Your task to perform on an android device: Open network settings Image 0: 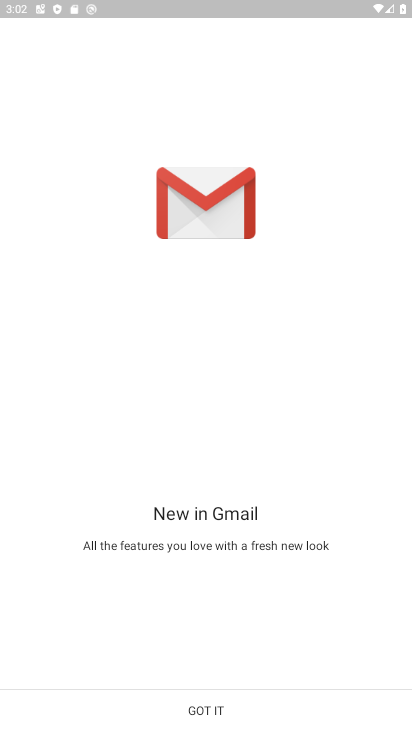
Step 0: press home button
Your task to perform on an android device: Open network settings Image 1: 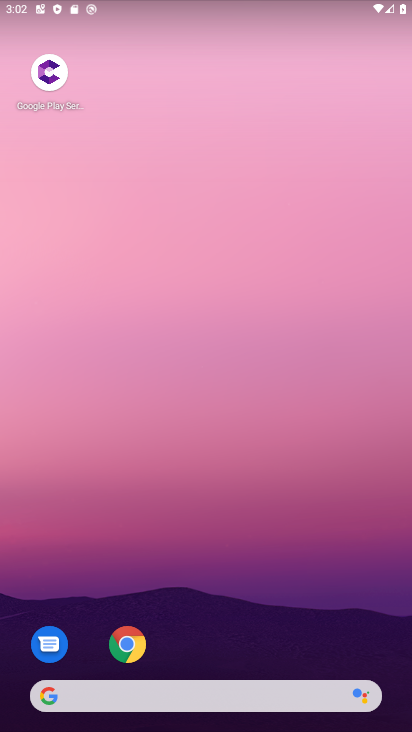
Step 1: drag from (292, 588) to (290, 133)
Your task to perform on an android device: Open network settings Image 2: 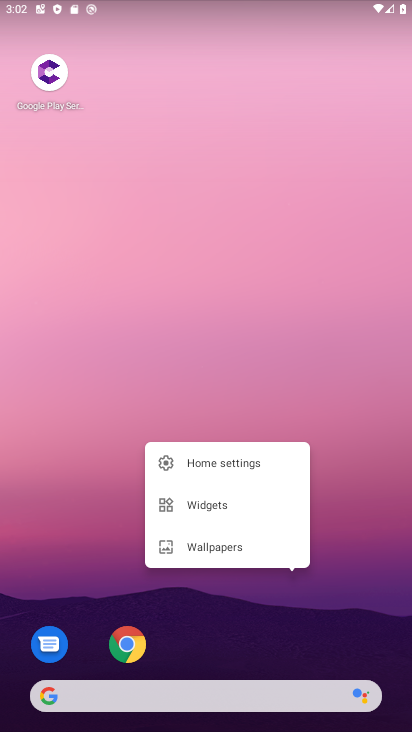
Step 2: click (344, 452)
Your task to perform on an android device: Open network settings Image 3: 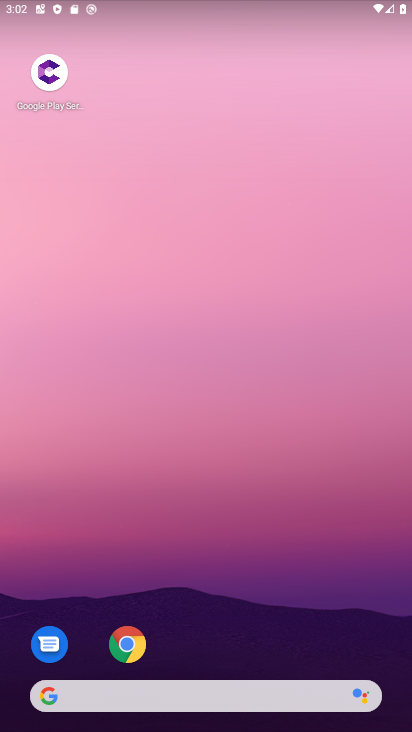
Step 3: drag from (304, 569) to (233, 104)
Your task to perform on an android device: Open network settings Image 4: 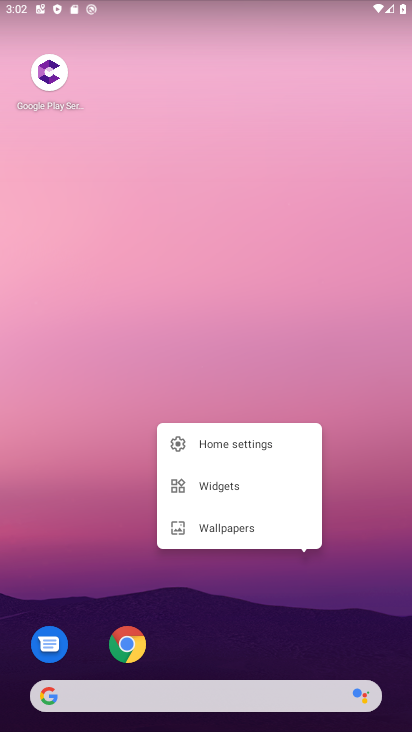
Step 4: click (235, 189)
Your task to perform on an android device: Open network settings Image 5: 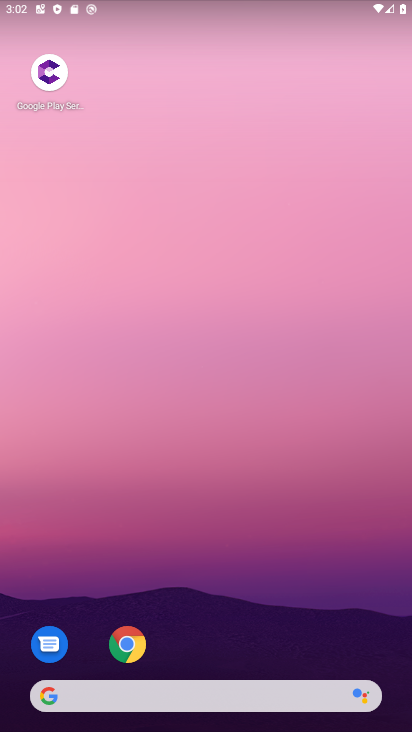
Step 5: drag from (320, 631) to (159, 25)
Your task to perform on an android device: Open network settings Image 6: 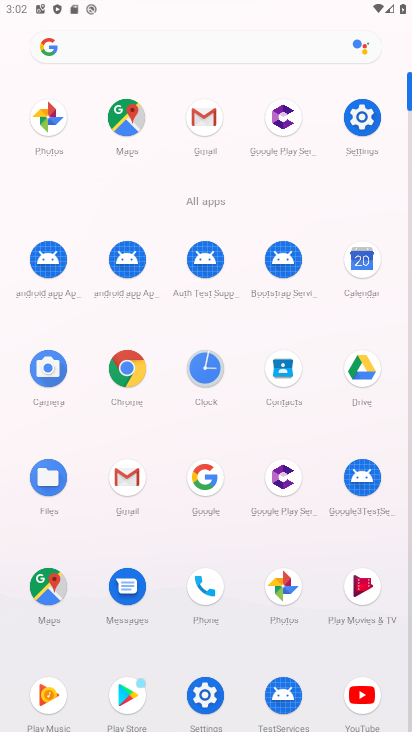
Step 6: click (348, 104)
Your task to perform on an android device: Open network settings Image 7: 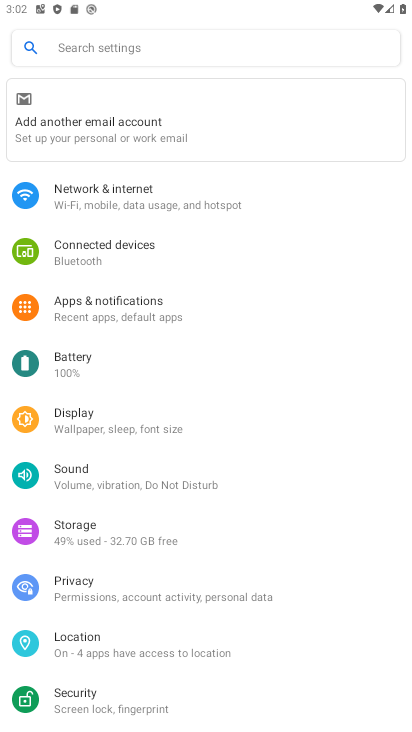
Step 7: click (238, 214)
Your task to perform on an android device: Open network settings Image 8: 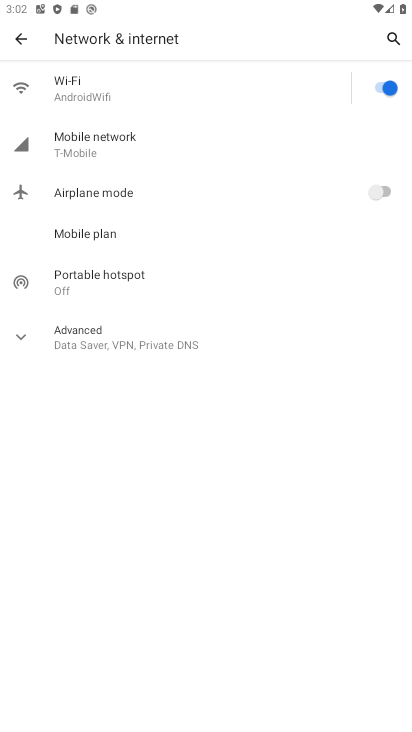
Step 8: task complete